Your task to perform on an android device: change keyboard looks Image 0: 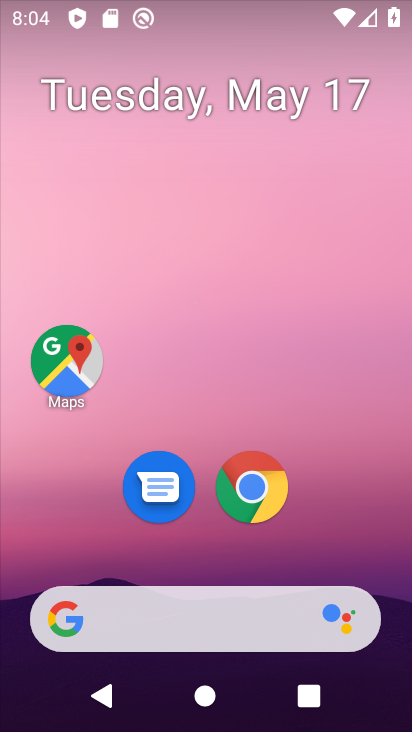
Step 0: drag from (269, 647) to (301, 85)
Your task to perform on an android device: change keyboard looks Image 1: 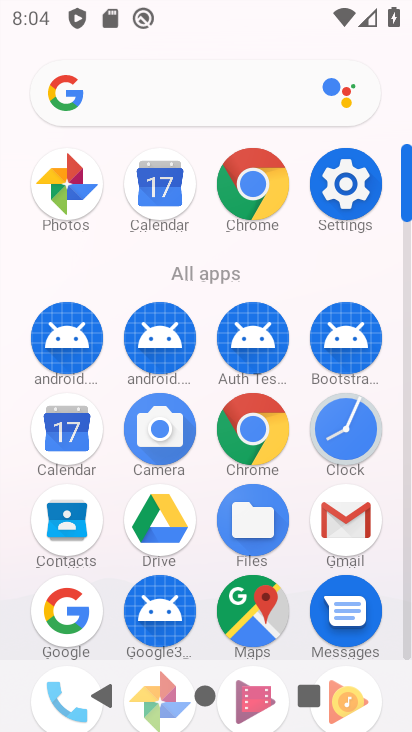
Step 1: click (369, 195)
Your task to perform on an android device: change keyboard looks Image 2: 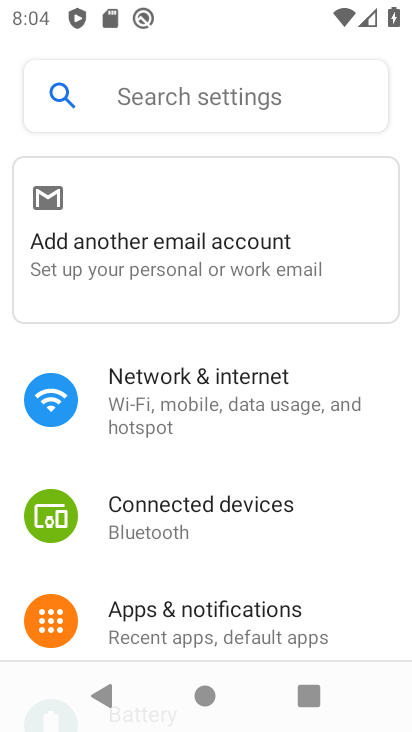
Step 2: click (207, 82)
Your task to perform on an android device: change keyboard looks Image 3: 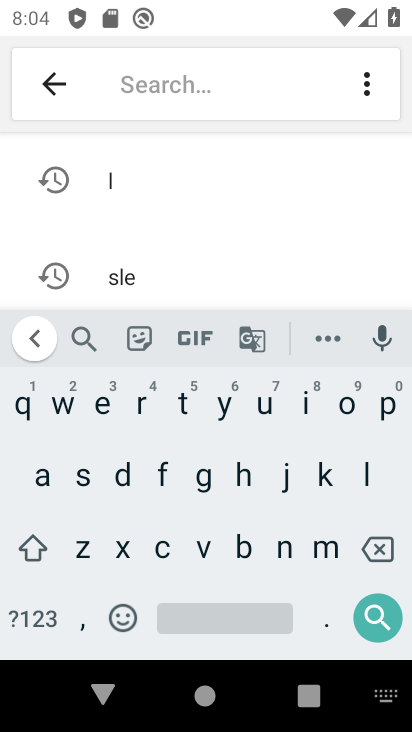
Step 3: click (323, 489)
Your task to perform on an android device: change keyboard looks Image 4: 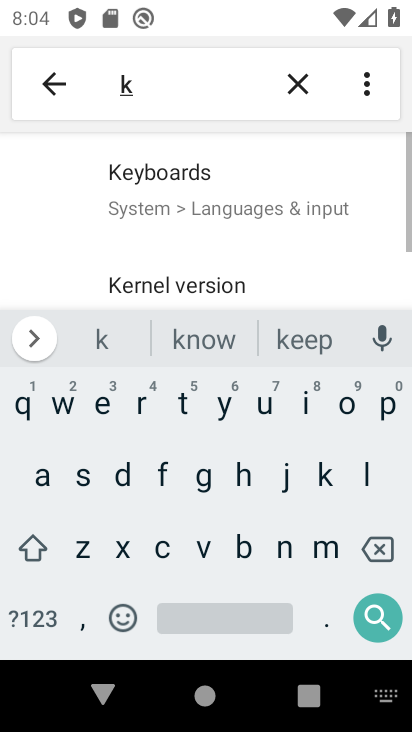
Step 4: click (106, 407)
Your task to perform on an android device: change keyboard looks Image 5: 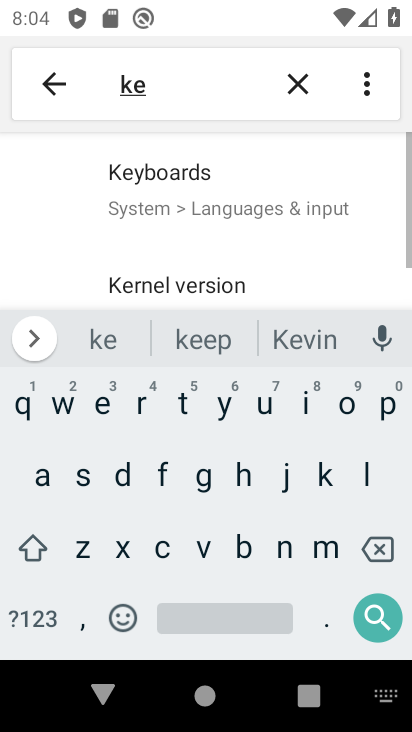
Step 5: click (223, 404)
Your task to perform on an android device: change keyboard looks Image 6: 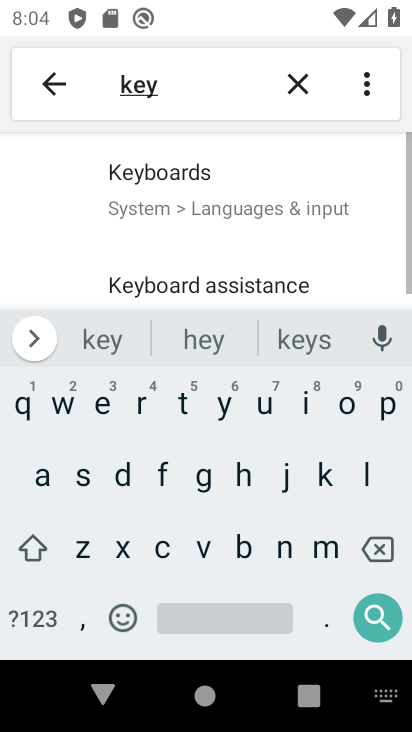
Step 6: click (184, 171)
Your task to perform on an android device: change keyboard looks Image 7: 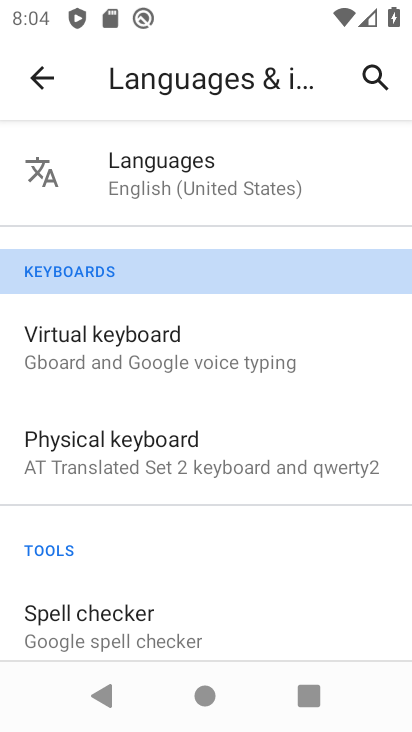
Step 7: click (152, 336)
Your task to perform on an android device: change keyboard looks Image 8: 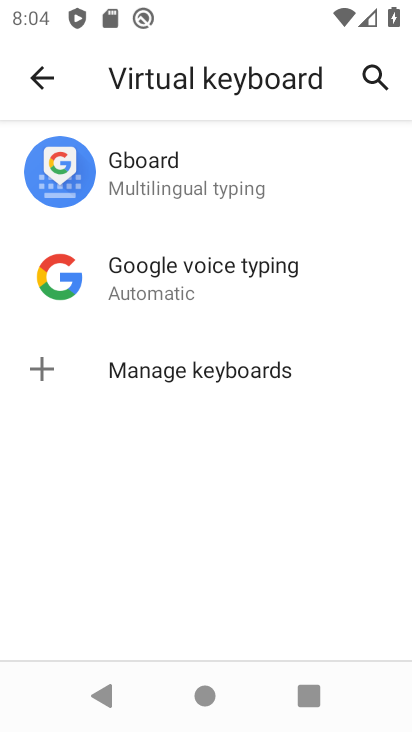
Step 8: click (173, 146)
Your task to perform on an android device: change keyboard looks Image 9: 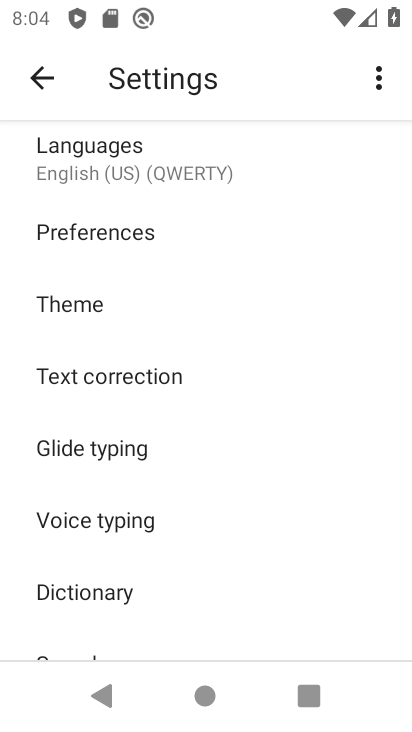
Step 9: click (110, 309)
Your task to perform on an android device: change keyboard looks Image 10: 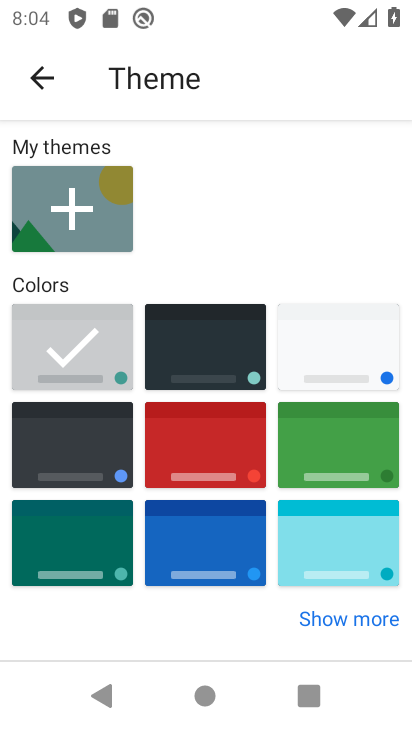
Step 10: click (74, 473)
Your task to perform on an android device: change keyboard looks Image 11: 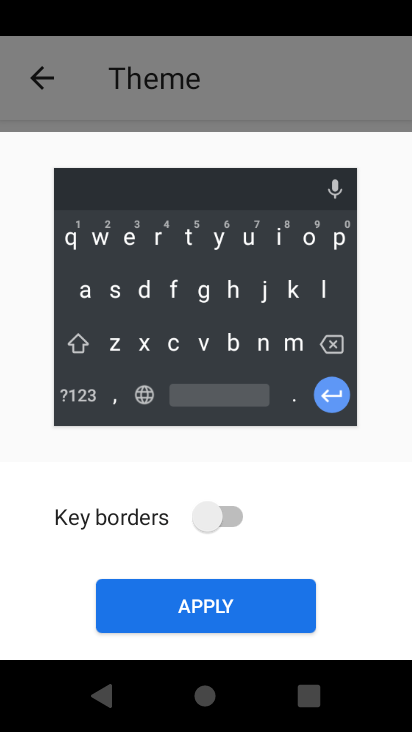
Step 11: click (218, 515)
Your task to perform on an android device: change keyboard looks Image 12: 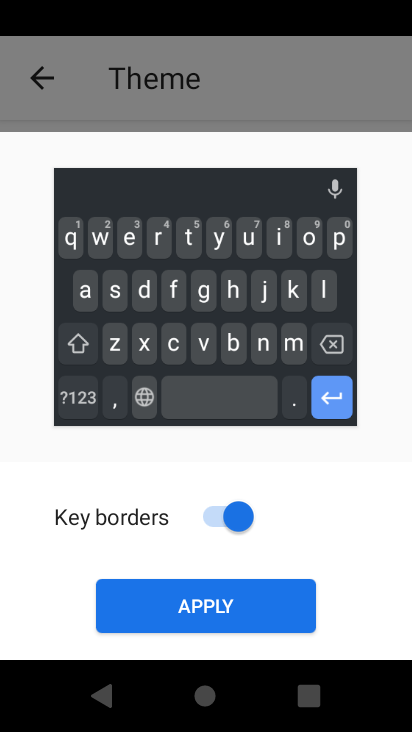
Step 12: click (243, 597)
Your task to perform on an android device: change keyboard looks Image 13: 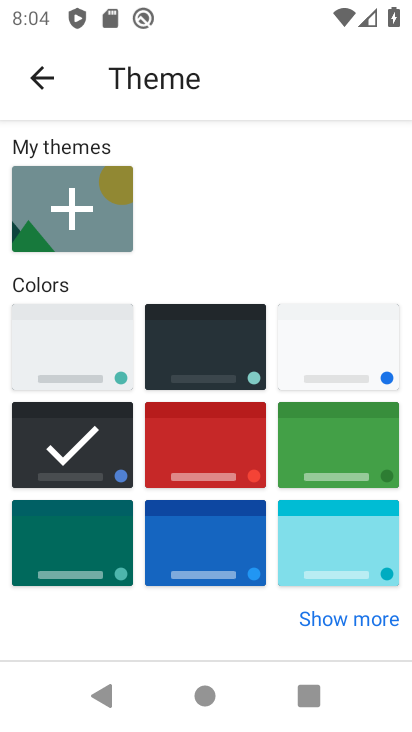
Step 13: task complete